Your task to perform on an android device: Open CNN.com Image 0: 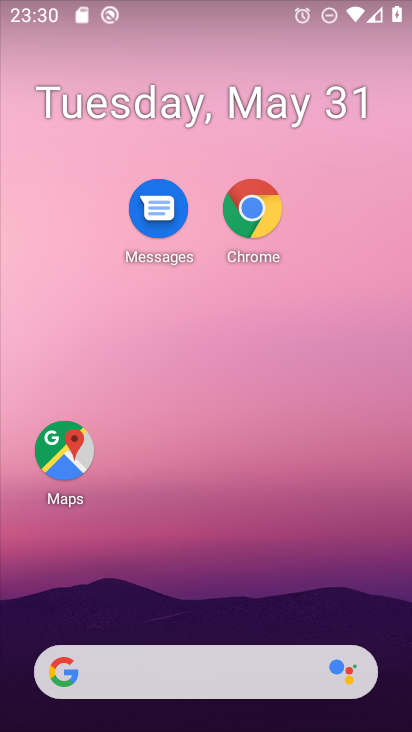
Step 0: press home button
Your task to perform on an android device: Open CNN.com Image 1: 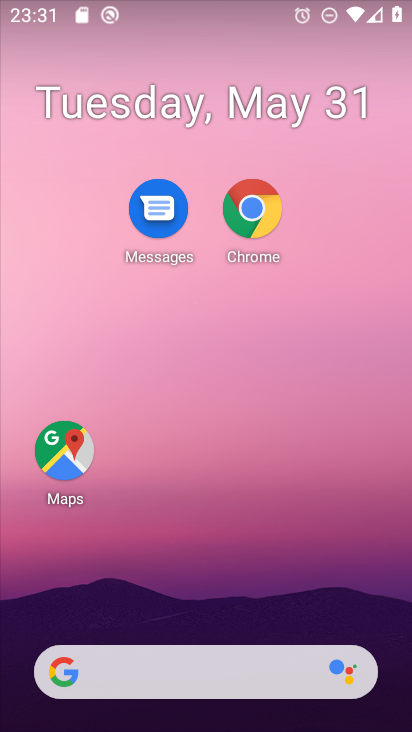
Step 1: click (250, 197)
Your task to perform on an android device: Open CNN.com Image 2: 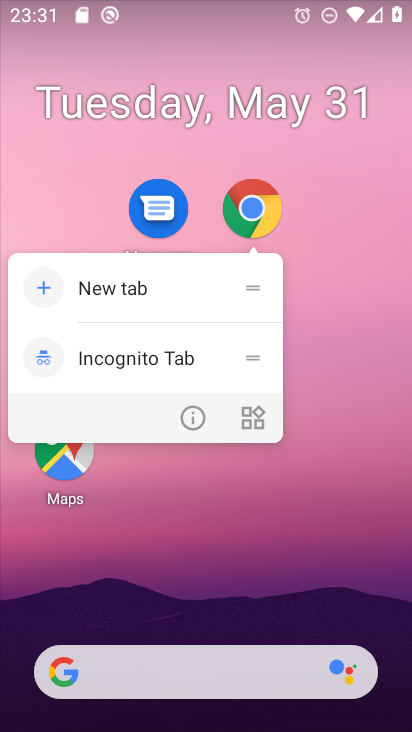
Step 2: click (347, 271)
Your task to perform on an android device: Open CNN.com Image 3: 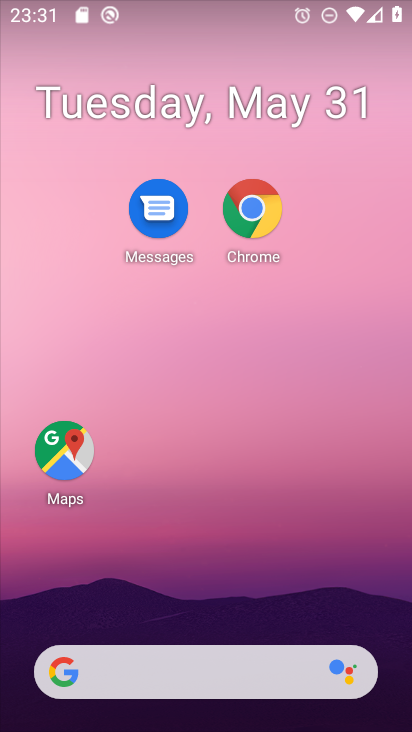
Step 3: click (254, 202)
Your task to perform on an android device: Open CNN.com Image 4: 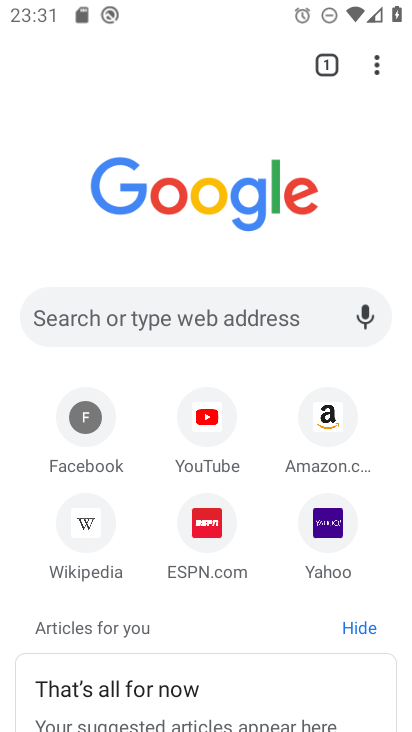
Step 4: click (179, 310)
Your task to perform on an android device: Open CNN.com Image 5: 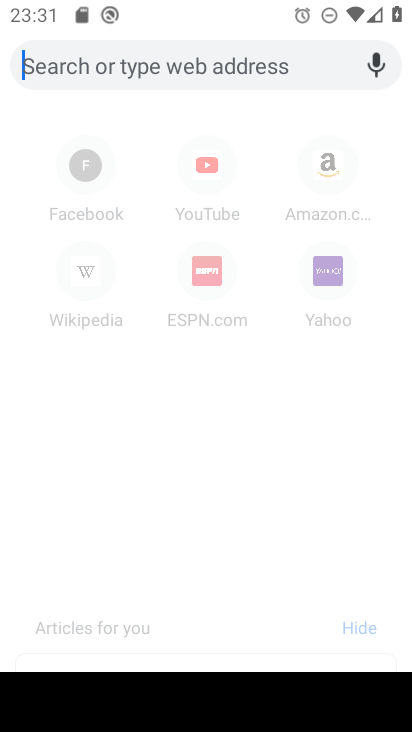
Step 5: type "cnn.com"
Your task to perform on an android device: Open CNN.com Image 6: 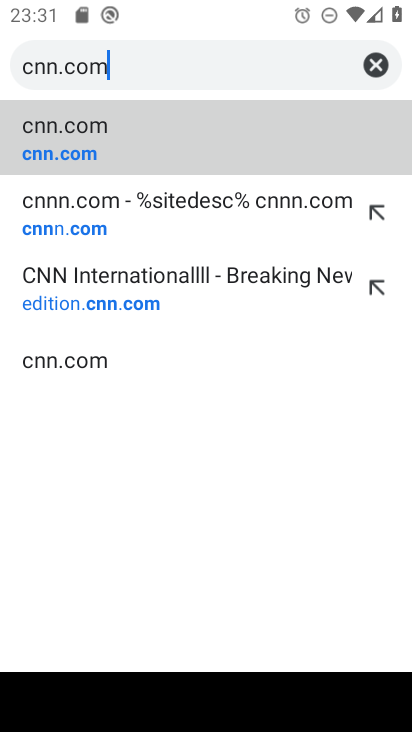
Step 6: click (112, 143)
Your task to perform on an android device: Open CNN.com Image 7: 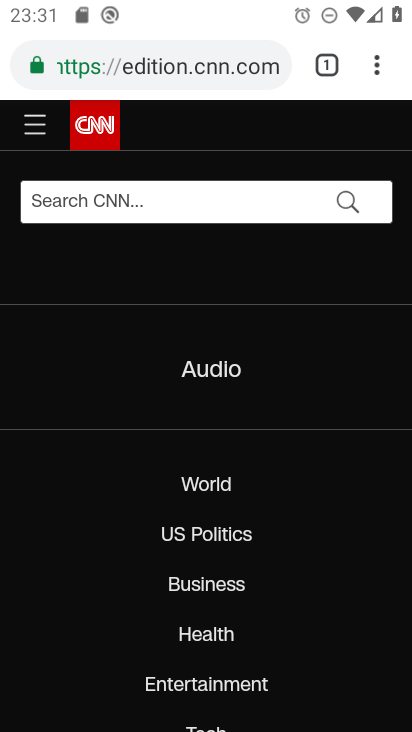
Step 7: task complete